Your task to perform on an android device: toggle javascript in the chrome app Image 0: 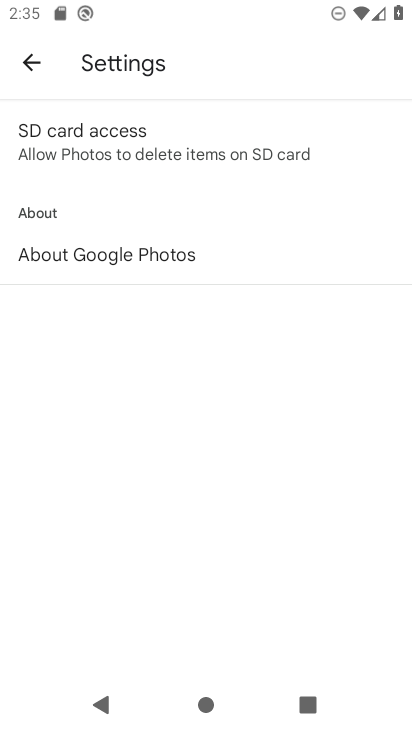
Step 0: press home button
Your task to perform on an android device: toggle javascript in the chrome app Image 1: 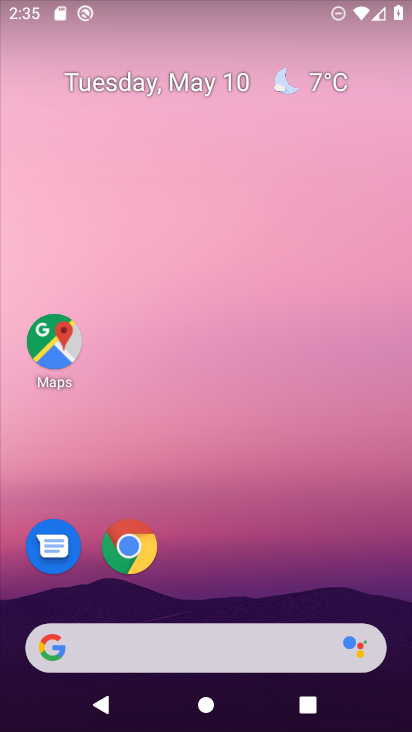
Step 1: click (120, 545)
Your task to perform on an android device: toggle javascript in the chrome app Image 2: 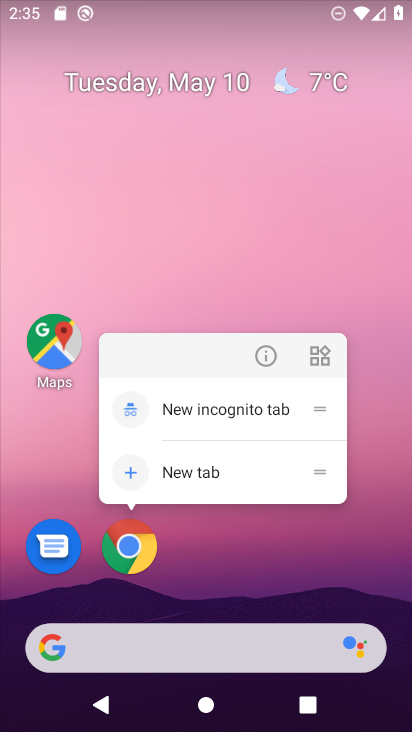
Step 2: click (128, 550)
Your task to perform on an android device: toggle javascript in the chrome app Image 3: 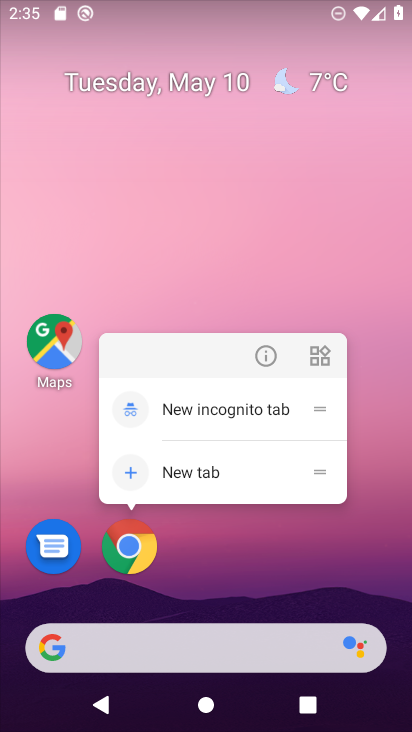
Step 3: click (128, 576)
Your task to perform on an android device: toggle javascript in the chrome app Image 4: 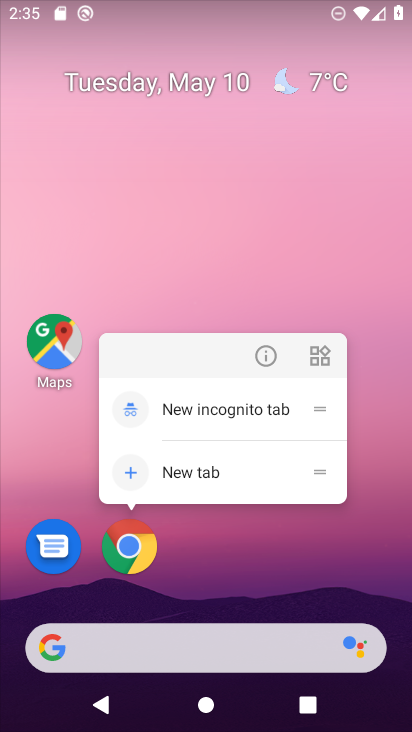
Step 4: click (122, 546)
Your task to perform on an android device: toggle javascript in the chrome app Image 5: 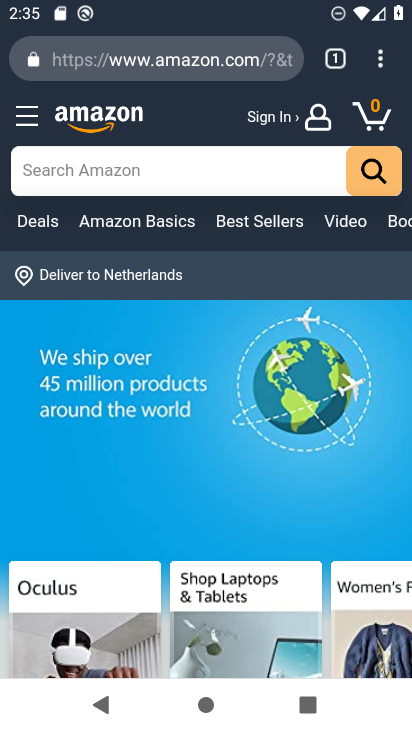
Step 5: drag from (384, 61) to (218, 575)
Your task to perform on an android device: toggle javascript in the chrome app Image 6: 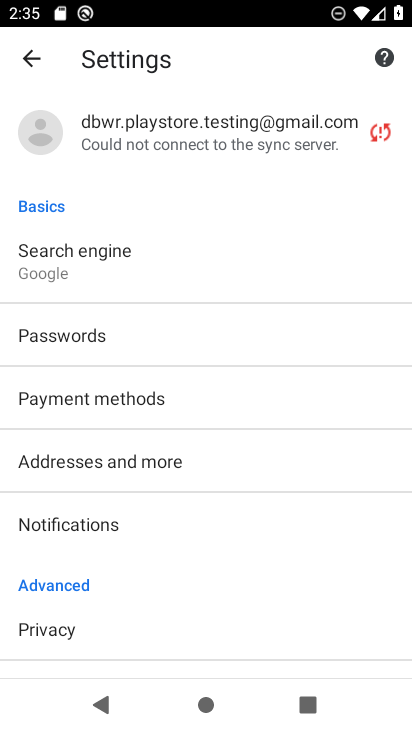
Step 6: drag from (182, 609) to (210, 267)
Your task to perform on an android device: toggle javascript in the chrome app Image 7: 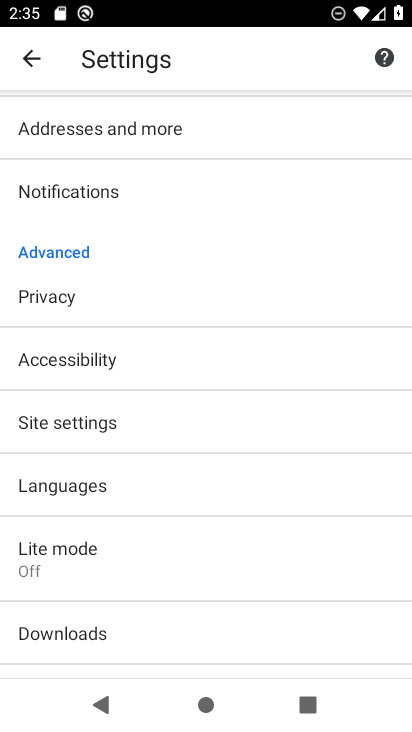
Step 7: click (120, 417)
Your task to perform on an android device: toggle javascript in the chrome app Image 8: 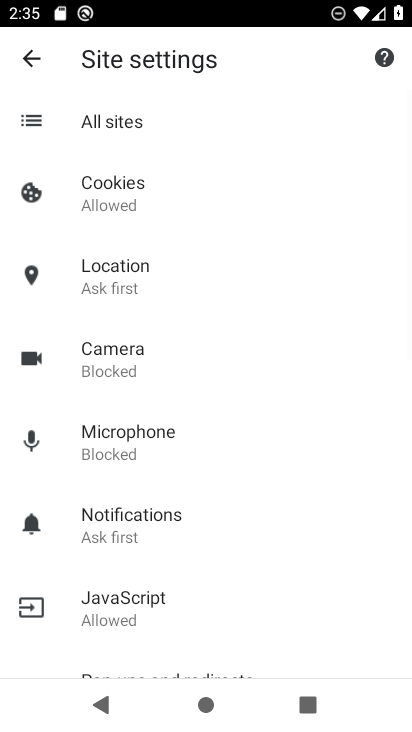
Step 8: click (213, 606)
Your task to perform on an android device: toggle javascript in the chrome app Image 9: 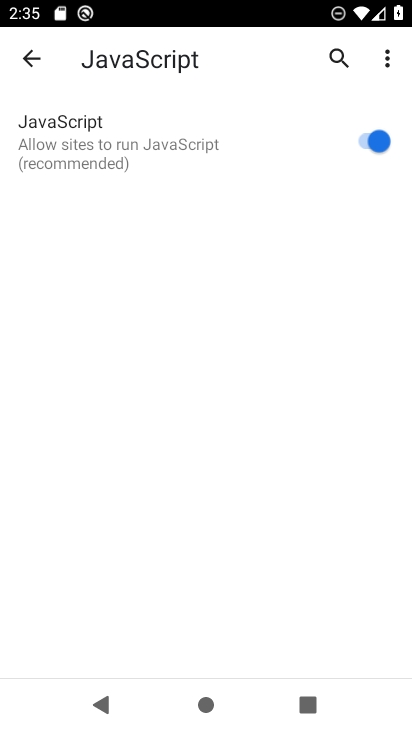
Step 9: click (384, 122)
Your task to perform on an android device: toggle javascript in the chrome app Image 10: 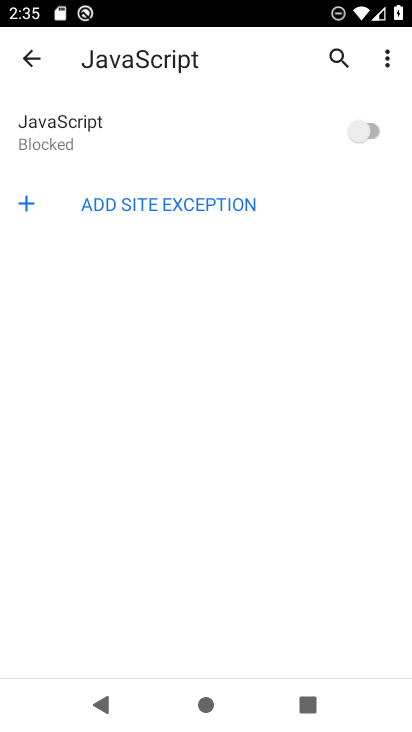
Step 10: task complete